Your task to perform on an android device: allow notifications from all sites in the chrome app Image 0: 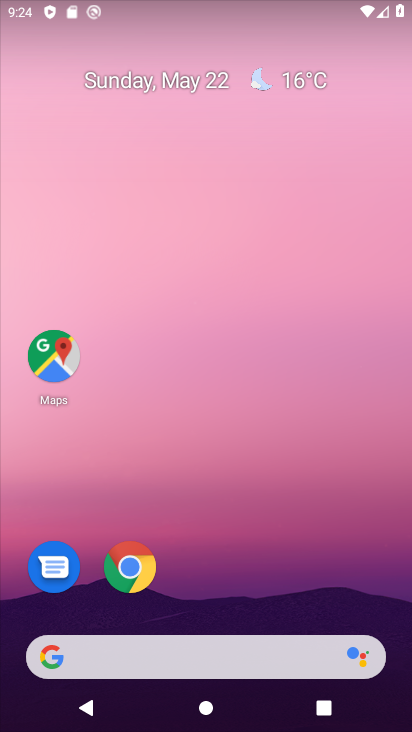
Step 0: click (137, 574)
Your task to perform on an android device: allow notifications from all sites in the chrome app Image 1: 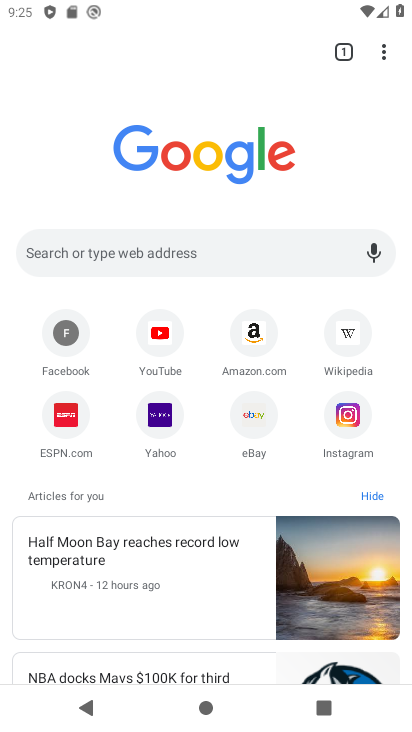
Step 1: click (387, 51)
Your task to perform on an android device: allow notifications from all sites in the chrome app Image 2: 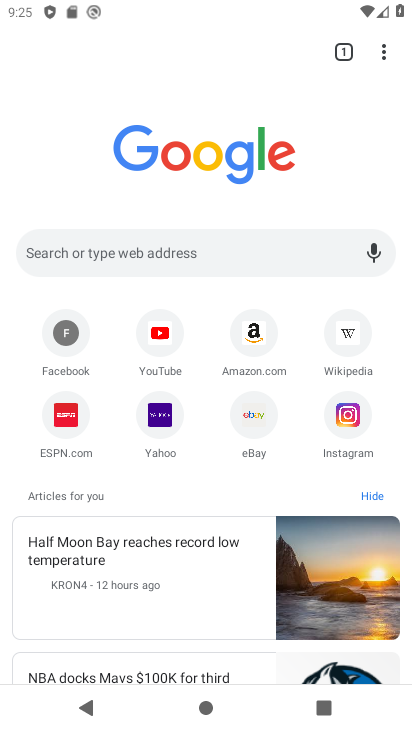
Step 2: drag from (380, 51) to (197, 435)
Your task to perform on an android device: allow notifications from all sites in the chrome app Image 3: 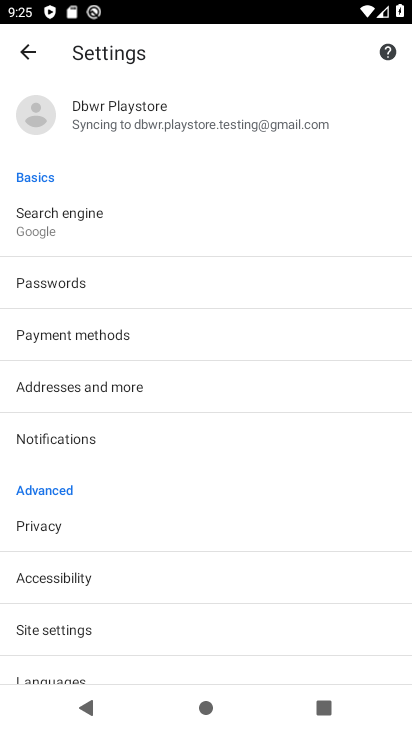
Step 3: drag from (142, 564) to (104, 261)
Your task to perform on an android device: allow notifications from all sites in the chrome app Image 4: 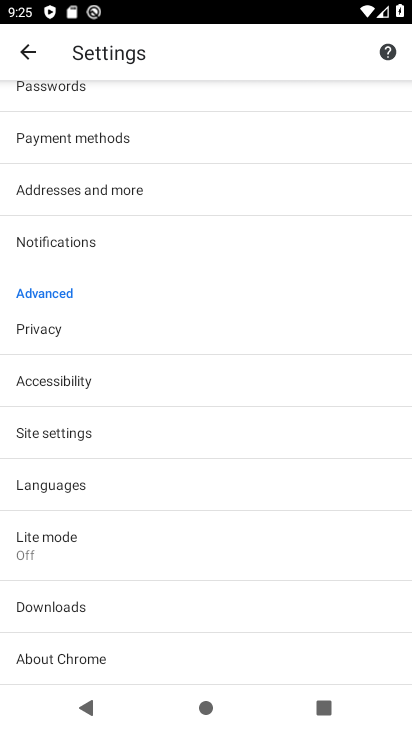
Step 4: click (64, 427)
Your task to perform on an android device: allow notifications from all sites in the chrome app Image 5: 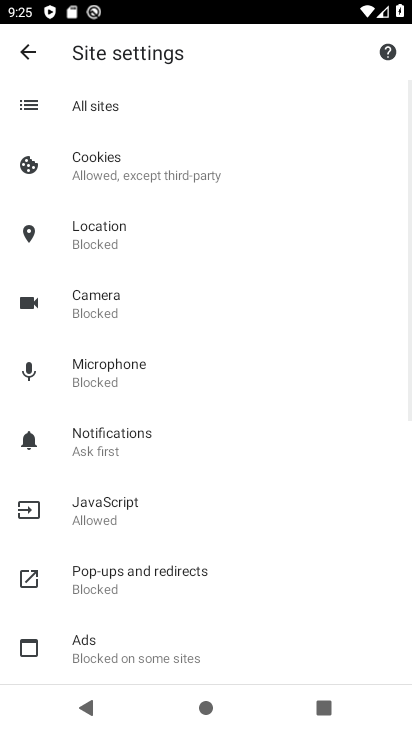
Step 5: click (99, 447)
Your task to perform on an android device: allow notifications from all sites in the chrome app Image 6: 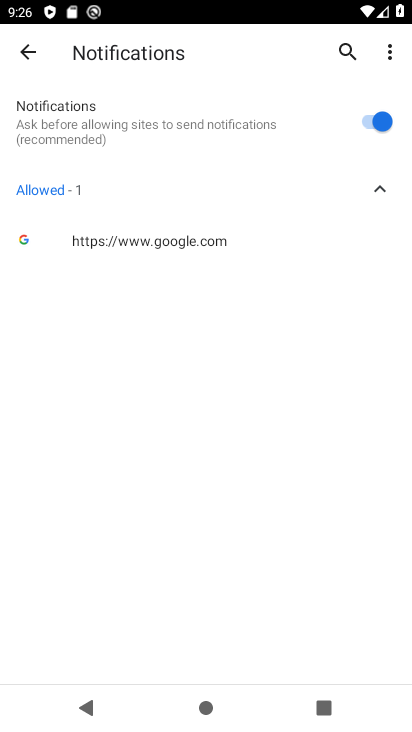
Step 6: task complete